Your task to perform on an android device: What is the recent news? Image 0: 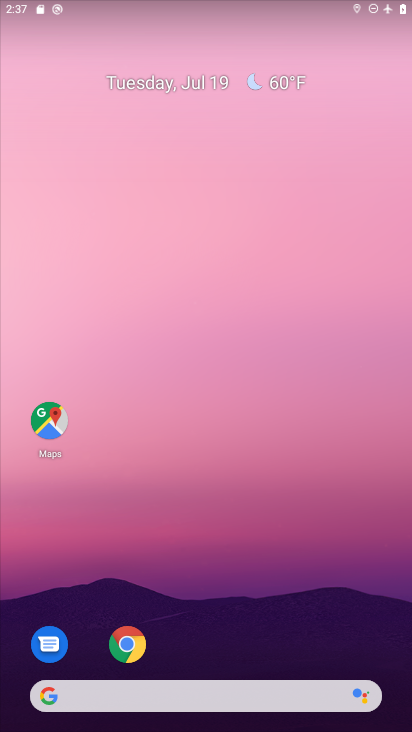
Step 0: drag from (223, 654) to (152, 103)
Your task to perform on an android device: What is the recent news? Image 1: 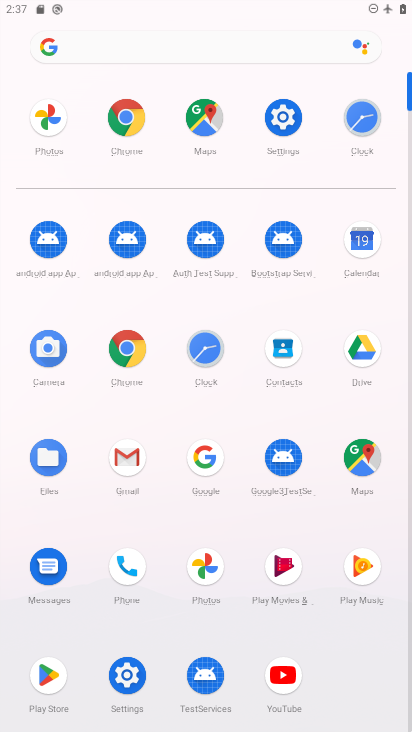
Step 1: click (197, 450)
Your task to perform on an android device: What is the recent news? Image 2: 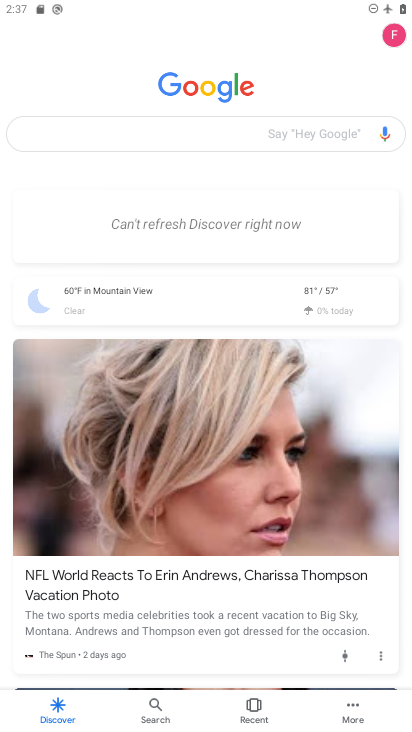
Step 2: click (163, 134)
Your task to perform on an android device: What is the recent news? Image 3: 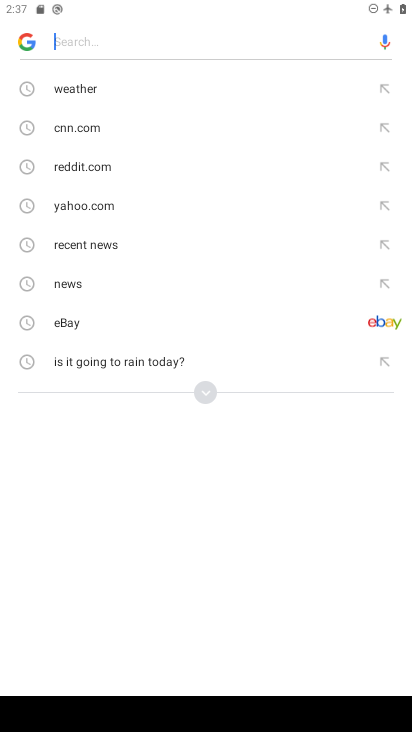
Step 3: click (92, 238)
Your task to perform on an android device: What is the recent news? Image 4: 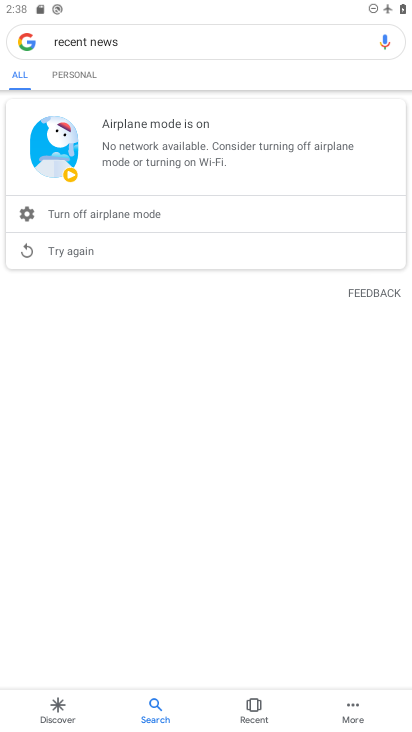
Step 4: task complete